Your task to perform on an android device: turn off wifi Image 0: 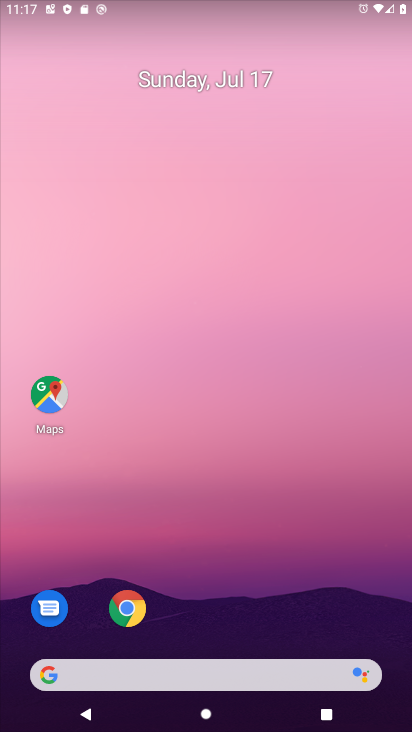
Step 0: drag from (237, 645) to (178, 33)
Your task to perform on an android device: turn off wifi Image 1: 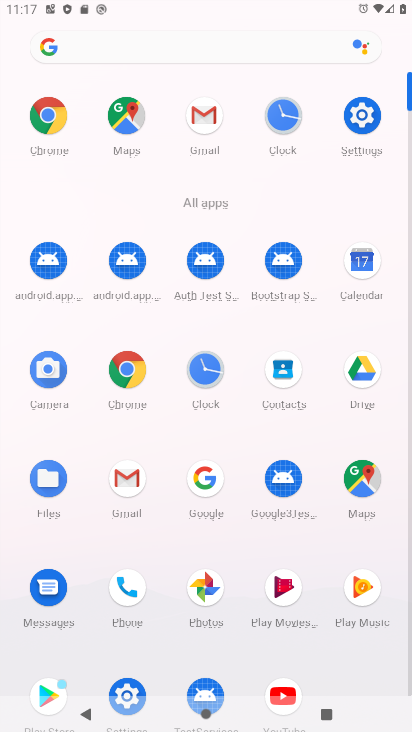
Step 1: click (363, 123)
Your task to perform on an android device: turn off wifi Image 2: 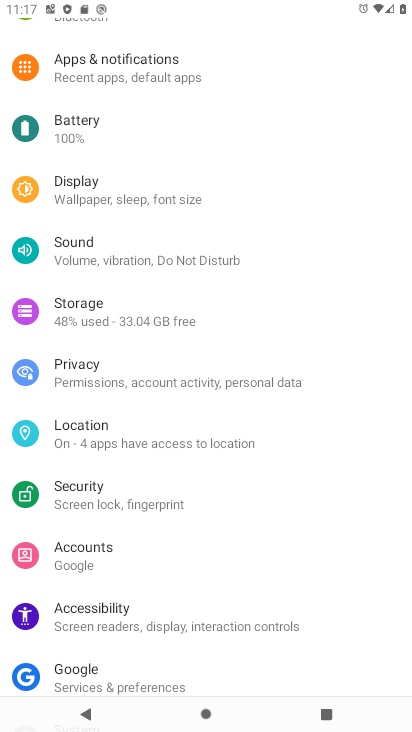
Step 2: drag from (257, 173) to (154, 603)
Your task to perform on an android device: turn off wifi Image 3: 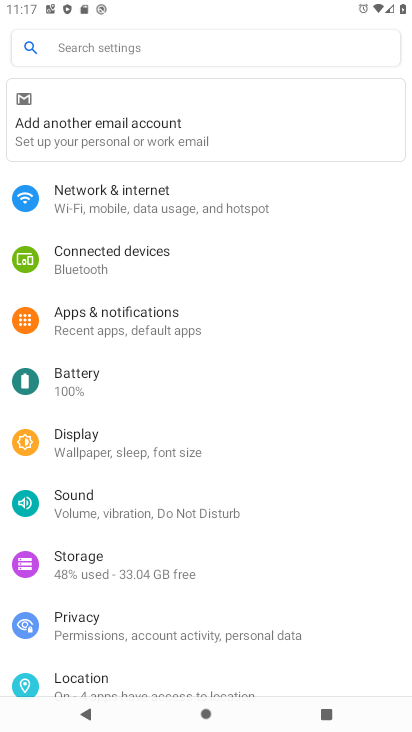
Step 3: click (103, 203)
Your task to perform on an android device: turn off wifi Image 4: 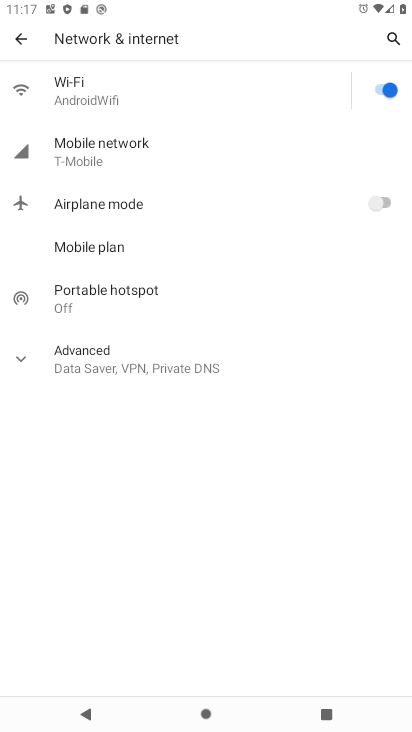
Step 4: click (103, 88)
Your task to perform on an android device: turn off wifi Image 5: 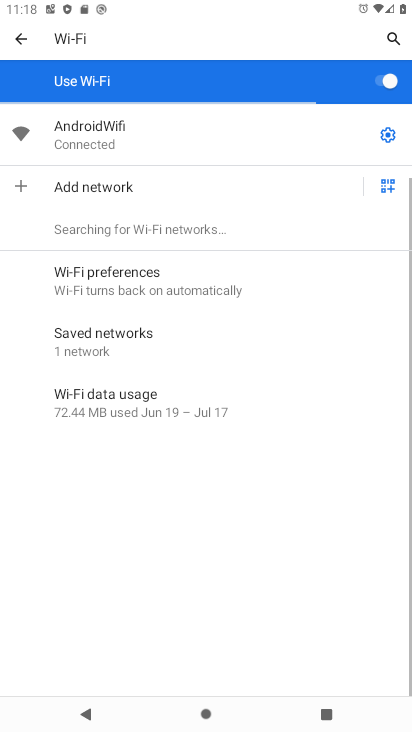
Step 5: click (395, 69)
Your task to perform on an android device: turn off wifi Image 6: 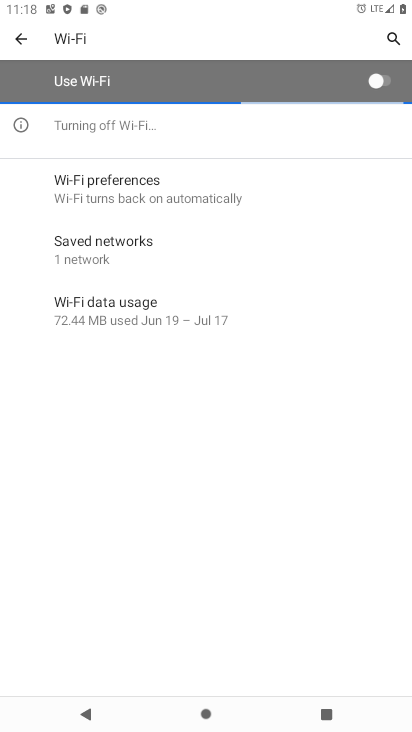
Step 6: task complete